Your task to perform on an android device: Search for seafood restaurants on Google Maps Image 0: 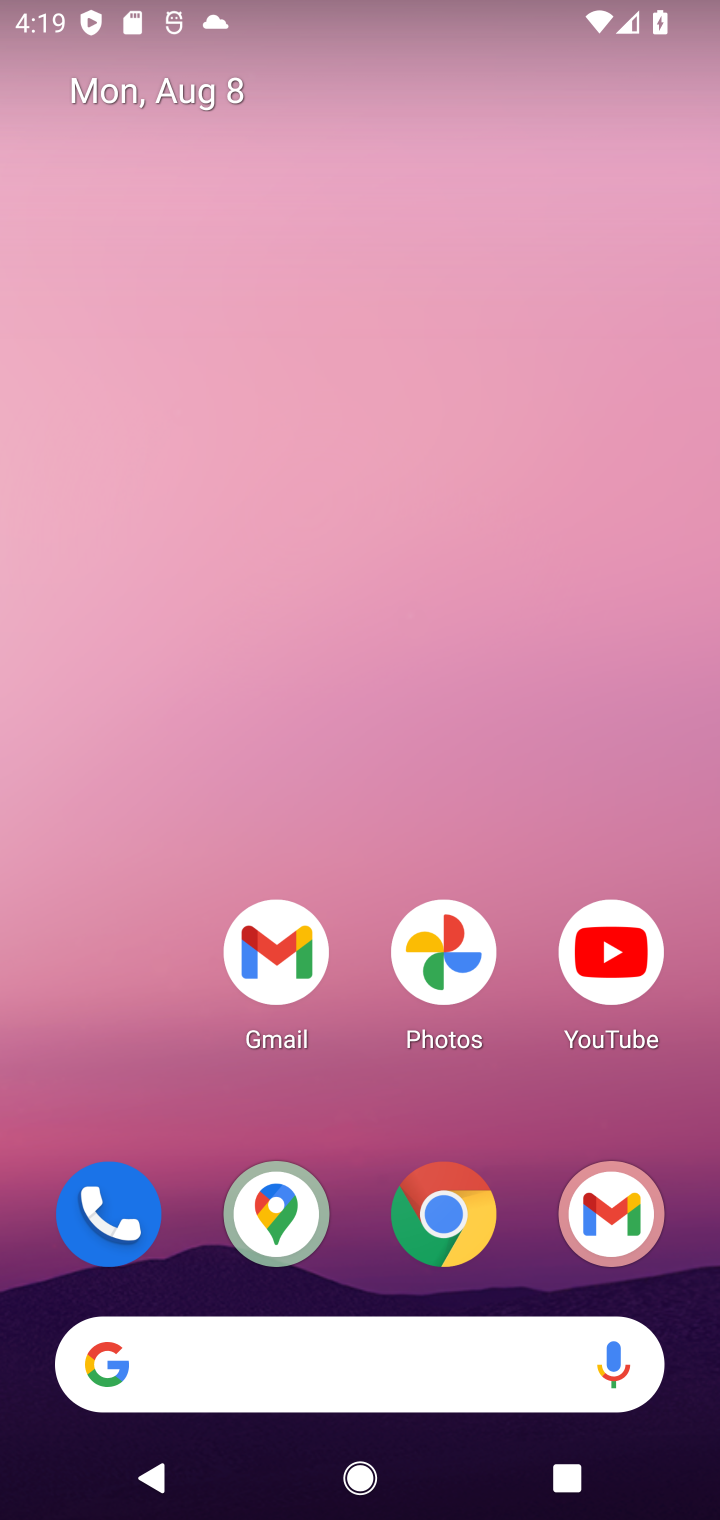
Step 0: drag from (352, 1292) to (387, 208)
Your task to perform on an android device: Search for seafood restaurants on Google Maps Image 1: 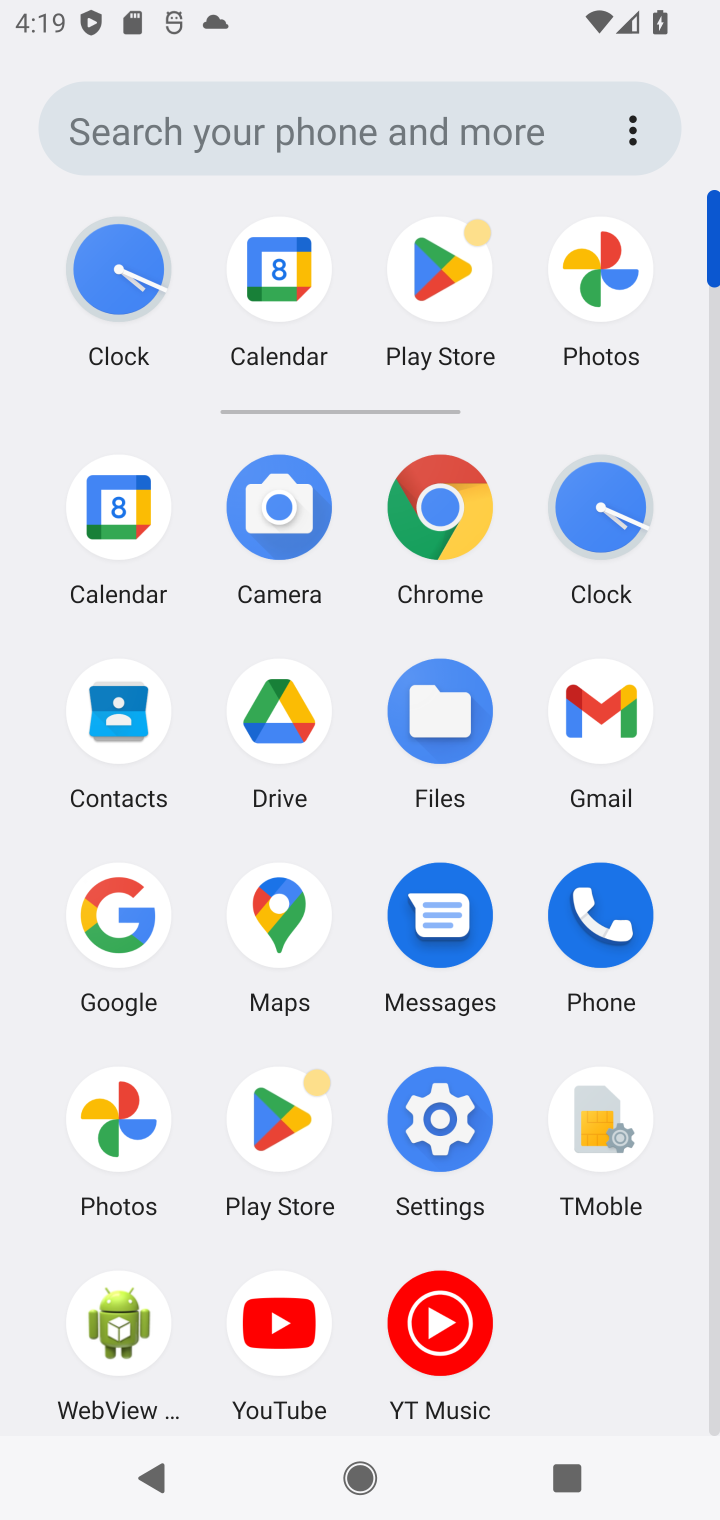
Step 1: click (279, 927)
Your task to perform on an android device: Search for seafood restaurants on Google Maps Image 2: 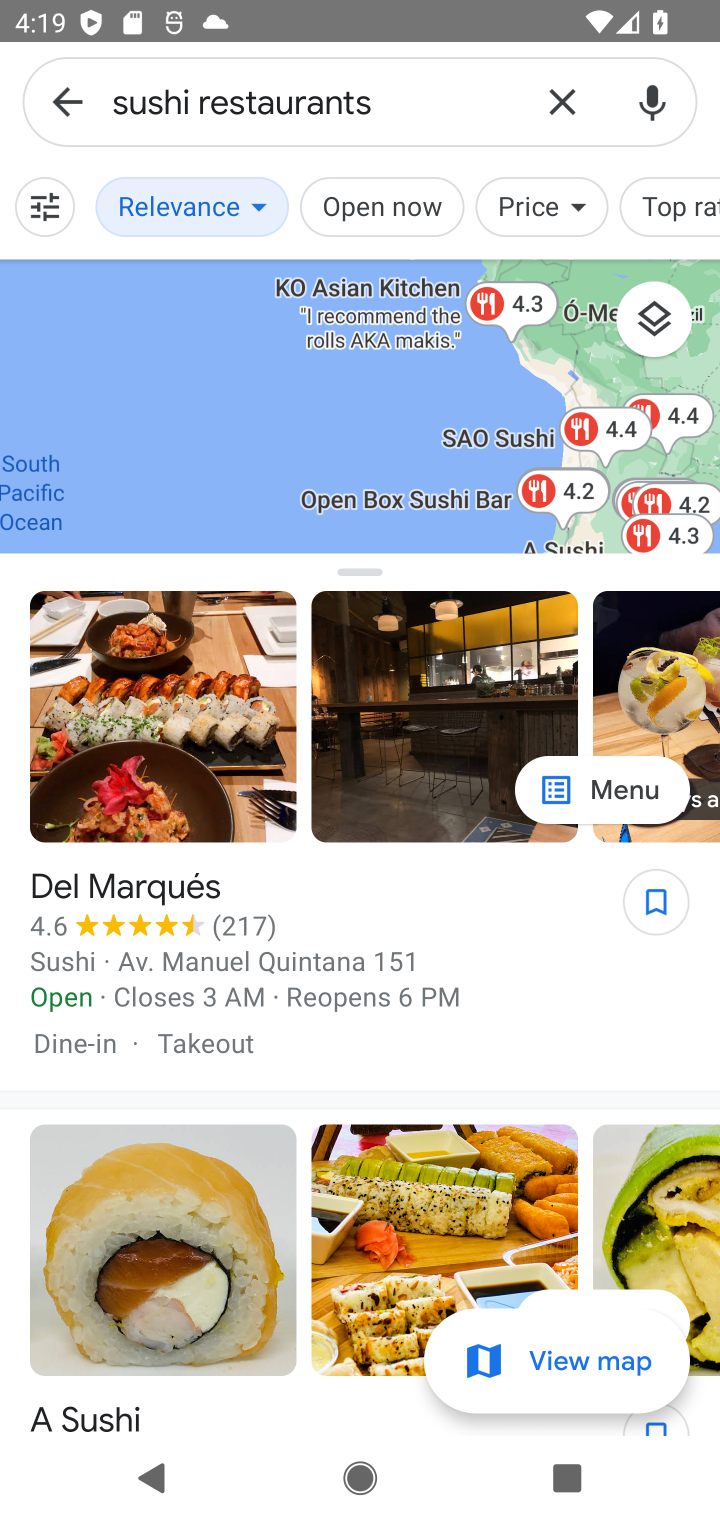
Step 2: click (546, 104)
Your task to perform on an android device: Search for seafood restaurants on Google Maps Image 3: 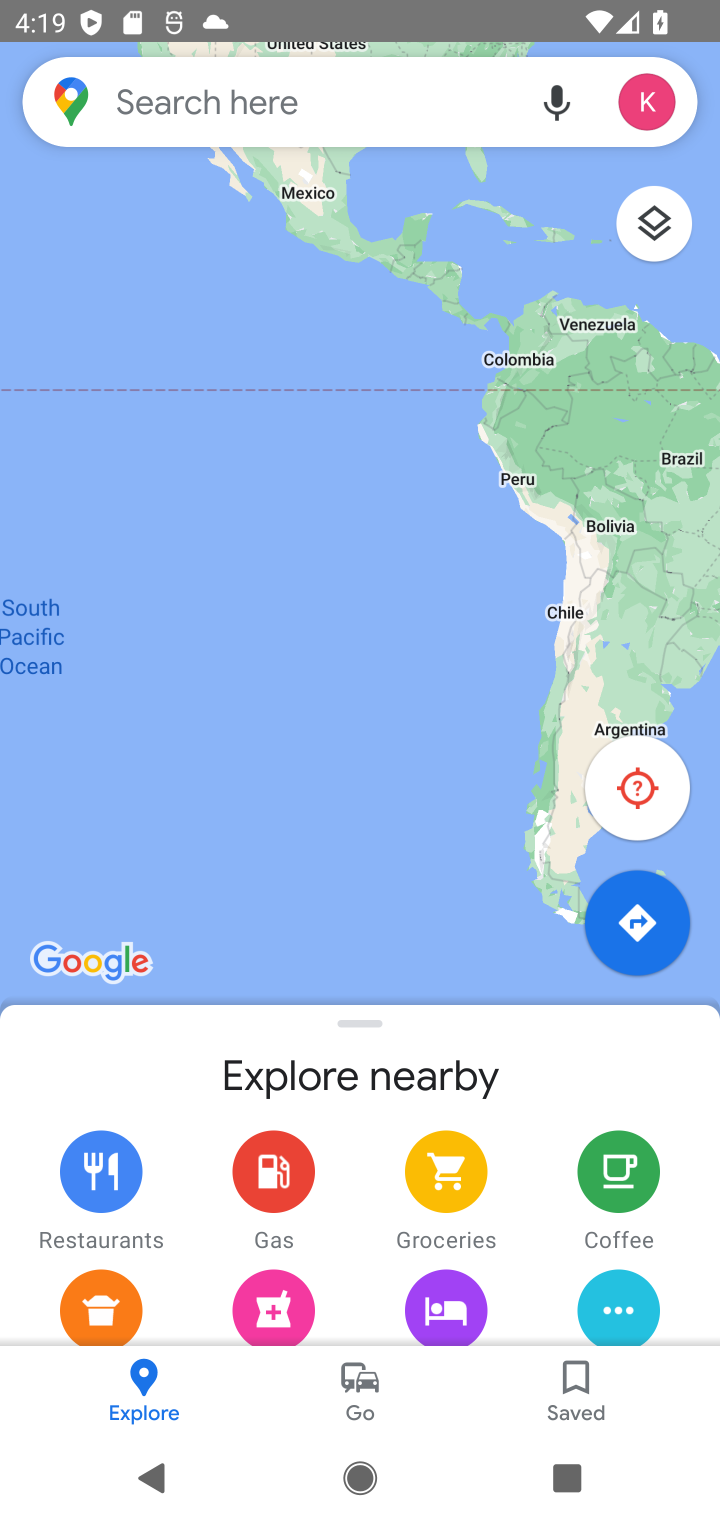
Step 3: click (434, 118)
Your task to perform on an android device: Search for seafood restaurants on Google Maps Image 4: 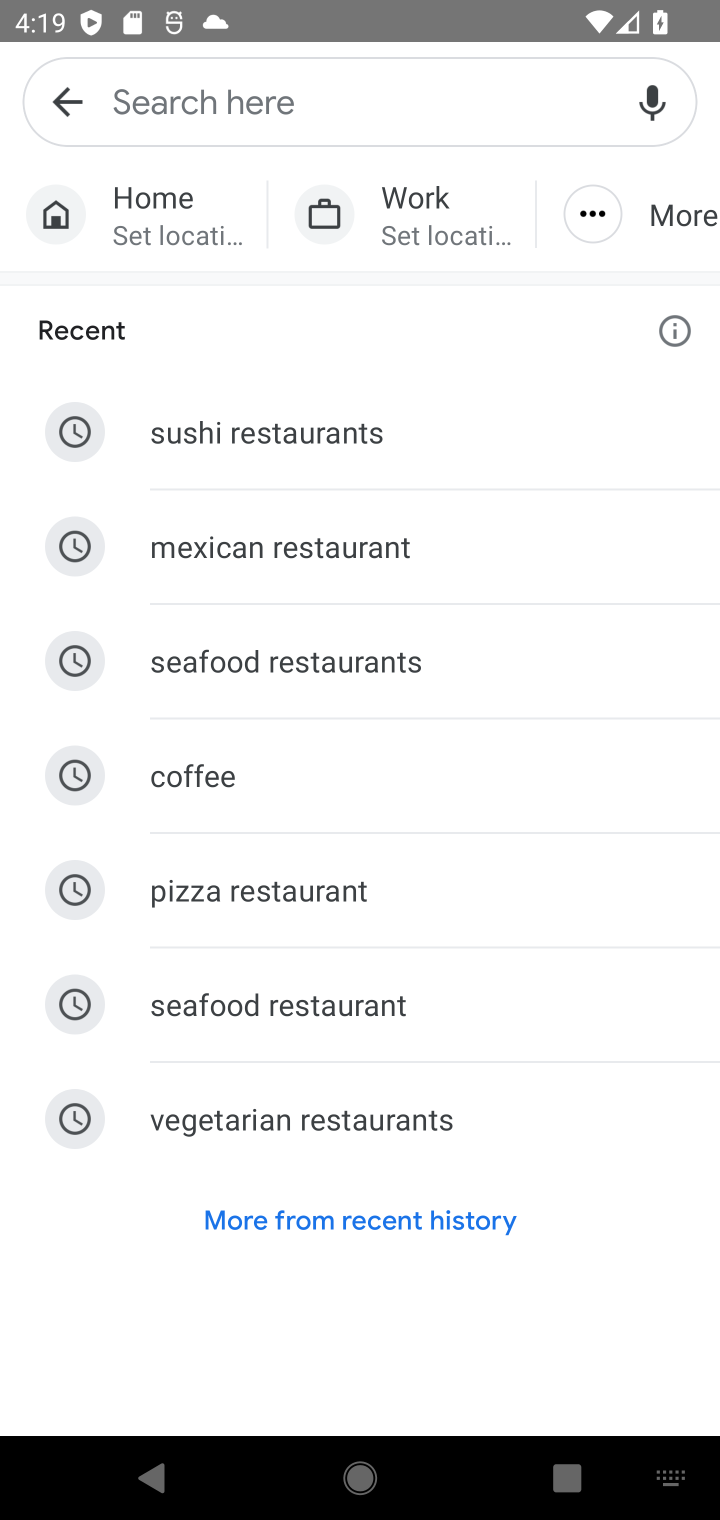
Step 4: type "Seafood  restaurants"
Your task to perform on an android device: Search for seafood restaurants on Google Maps Image 5: 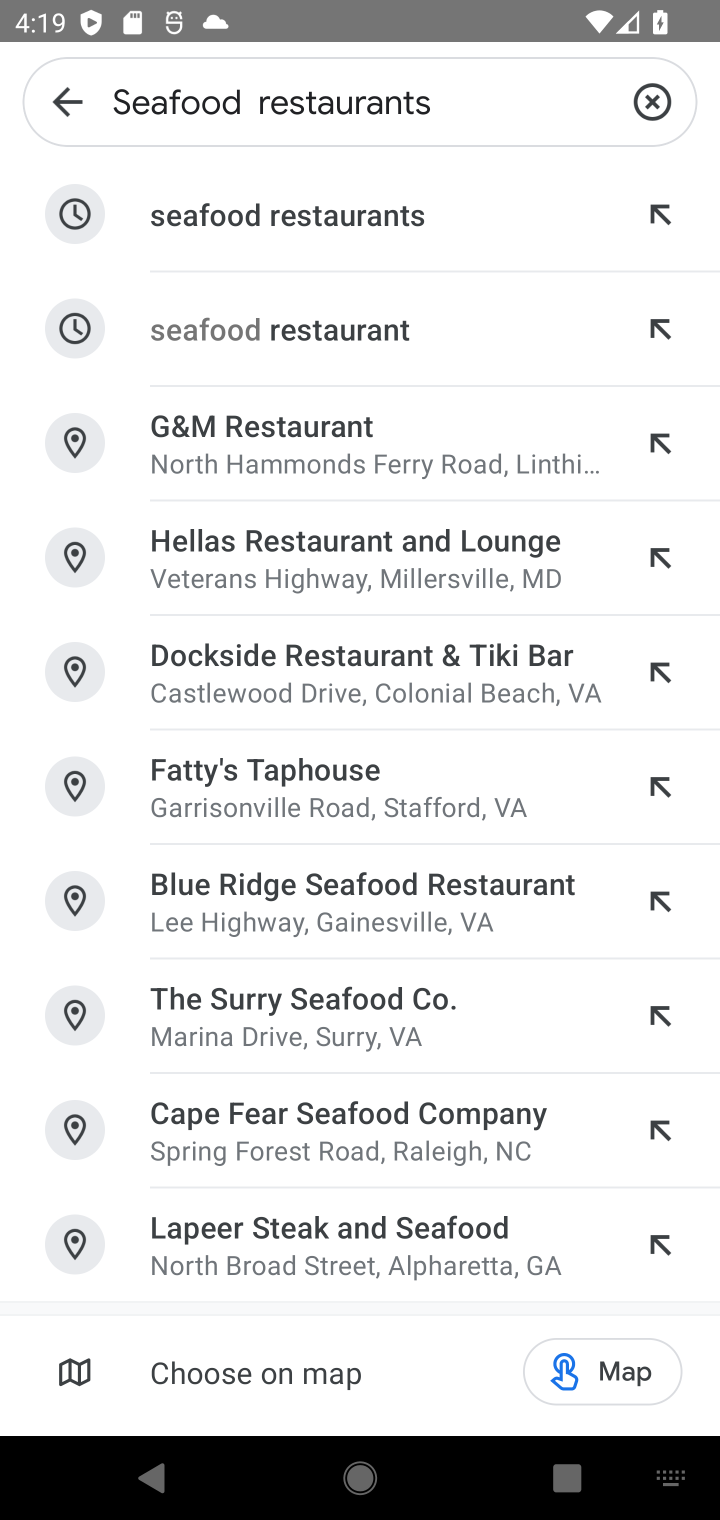
Step 5: click (290, 218)
Your task to perform on an android device: Search for seafood restaurants on Google Maps Image 6: 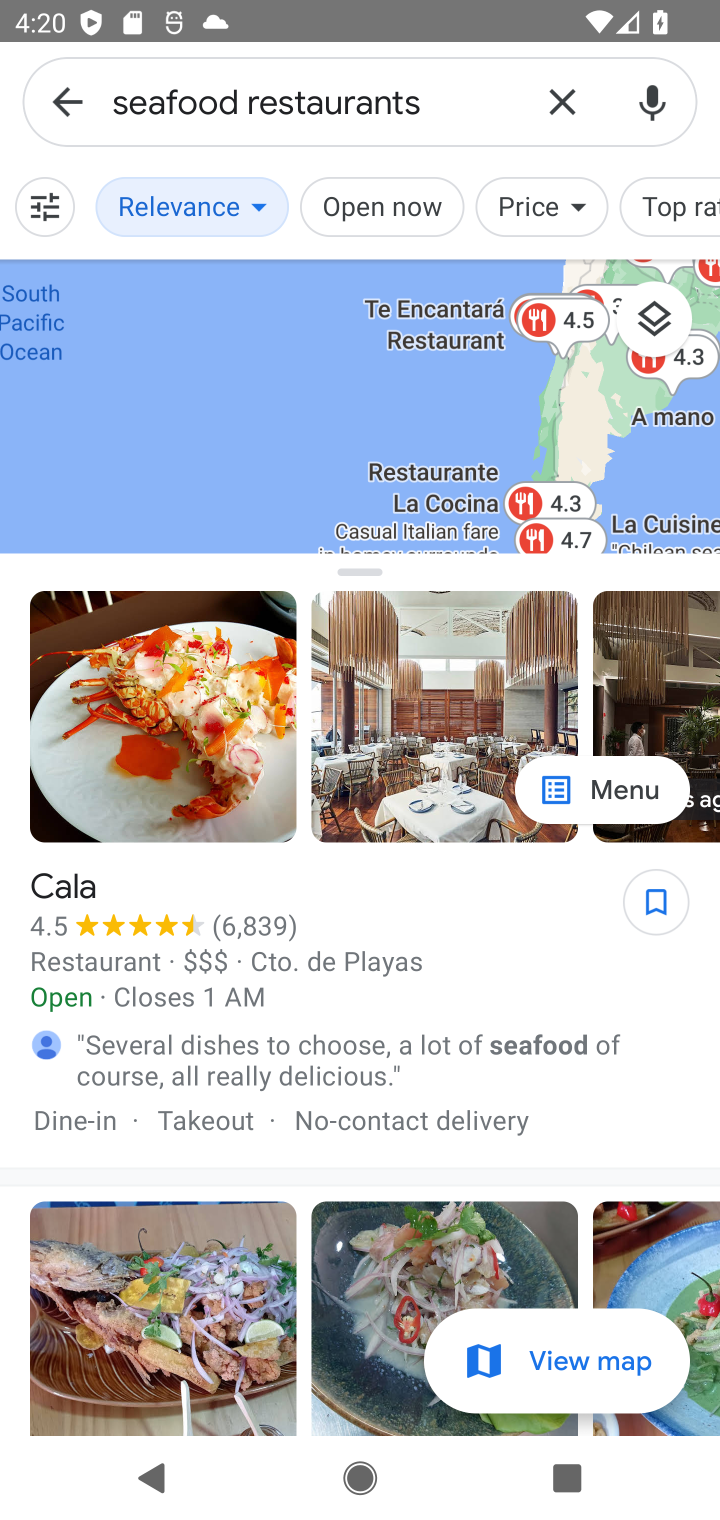
Step 6: task complete